Your task to perform on an android device: set the timer Image 0: 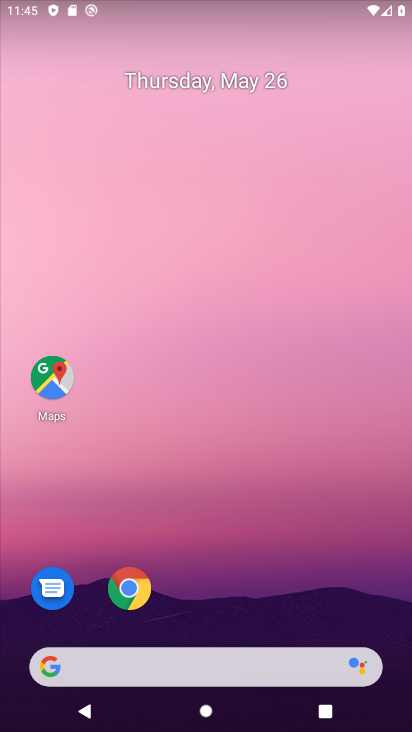
Step 0: drag from (328, 630) to (284, 183)
Your task to perform on an android device: set the timer Image 1: 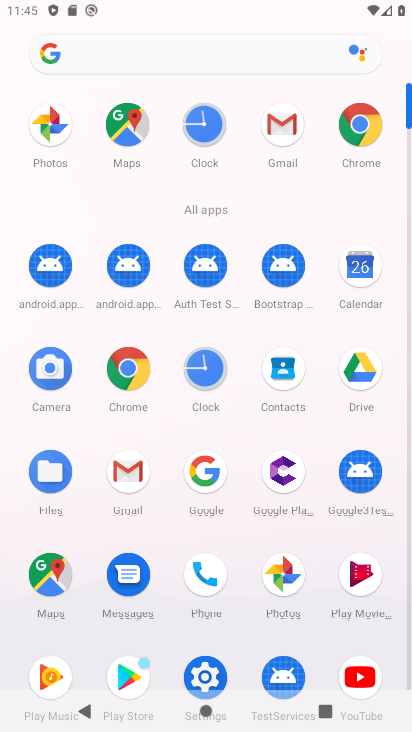
Step 1: click (196, 132)
Your task to perform on an android device: set the timer Image 2: 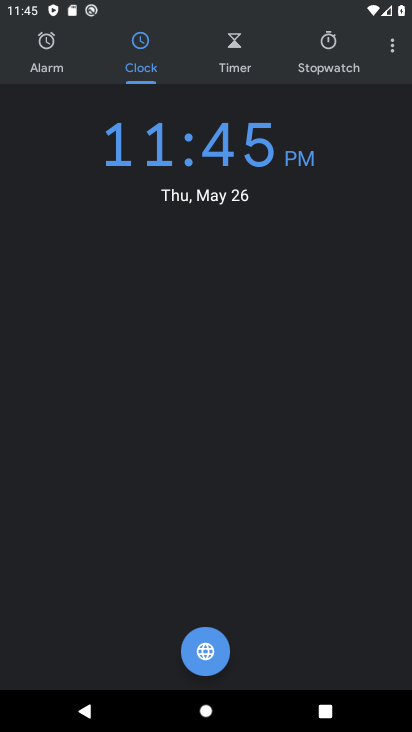
Step 2: click (392, 57)
Your task to perform on an android device: set the timer Image 3: 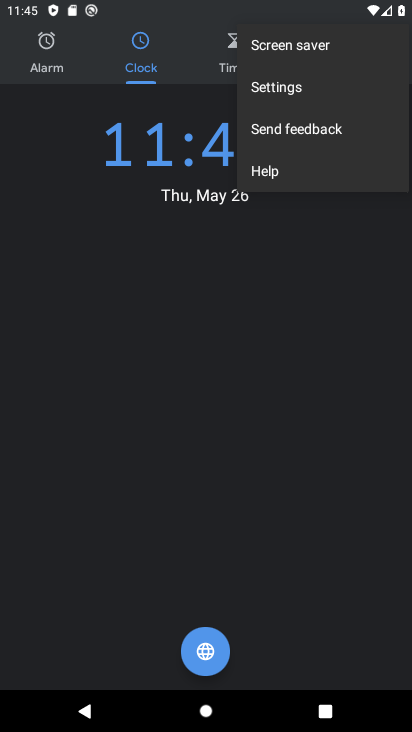
Step 3: click (297, 100)
Your task to perform on an android device: set the timer Image 4: 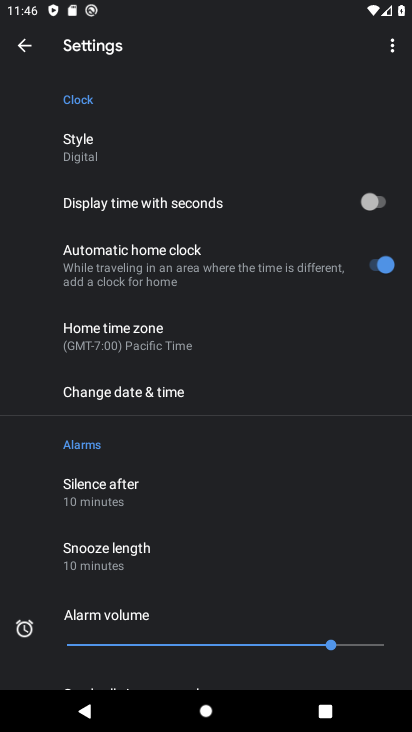
Step 4: drag from (244, 555) to (235, 298)
Your task to perform on an android device: set the timer Image 5: 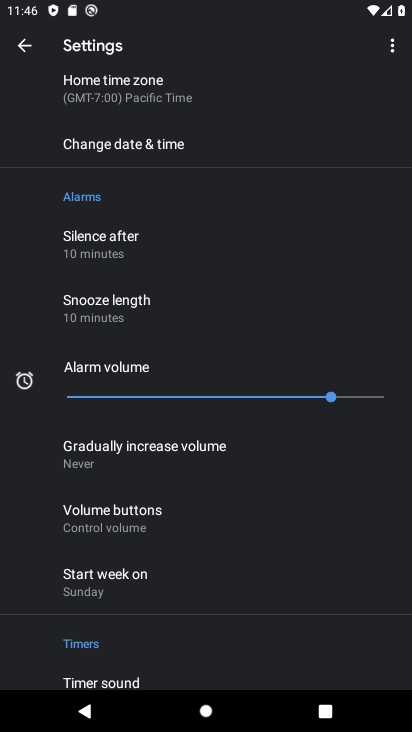
Step 5: drag from (149, 656) to (165, 420)
Your task to perform on an android device: set the timer Image 6: 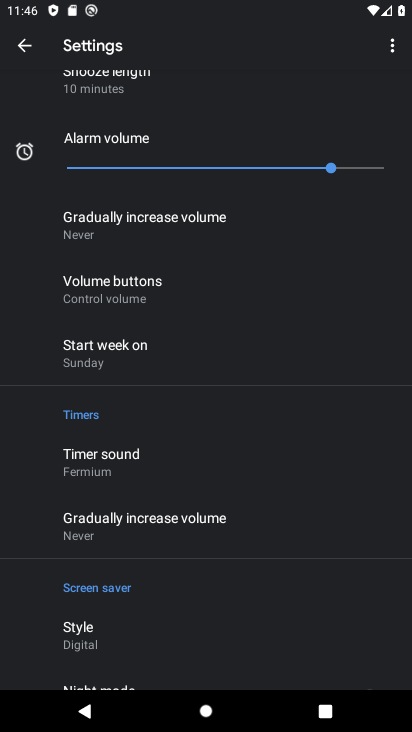
Step 6: click (35, 49)
Your task to perform on an android device: set the timer Image 7: 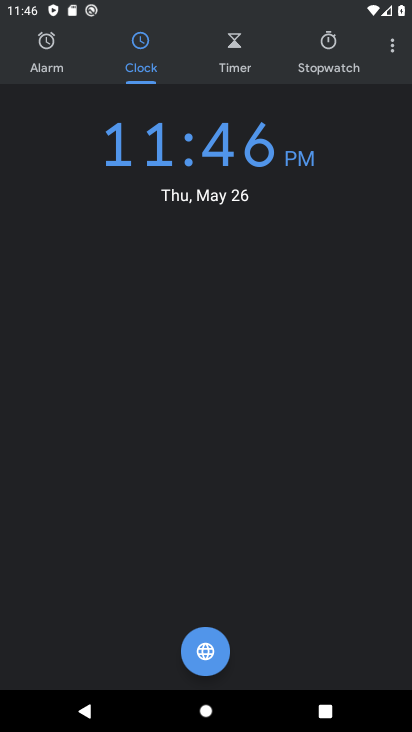
Step 7: click (243, 73)
Your task to perform on an android device: set the timer Image 8: 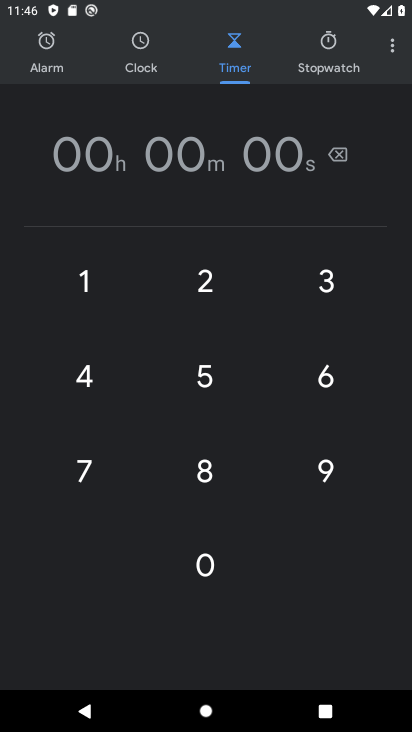
Step 8: task complete